Your task to perform on an android device: Clear all items from cart on costco. Search for bose quietcomfort 35 on costco, select the first entry, and add it to the cart. Image 0: 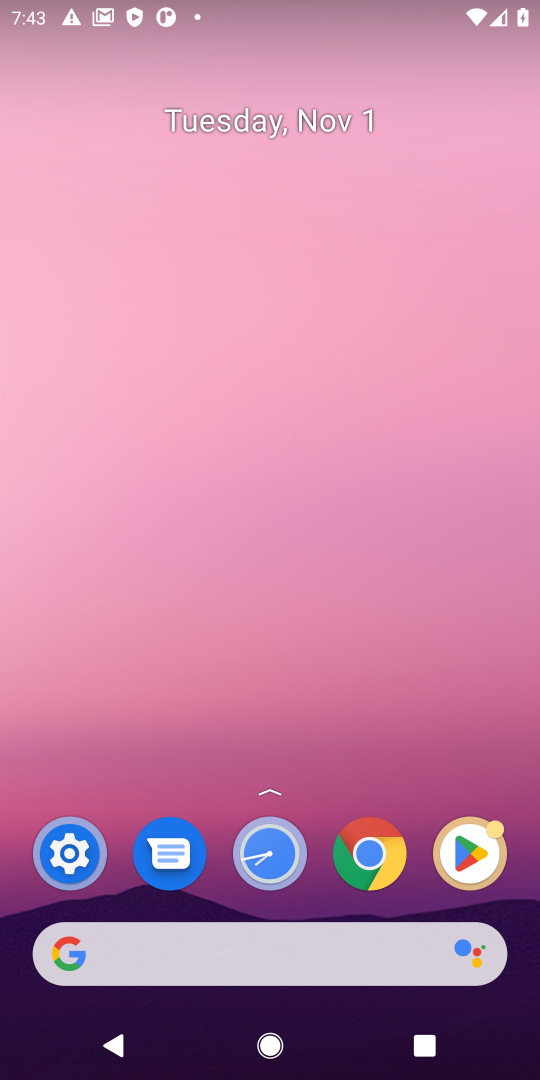
Step 0: click (257, 973)
Your task to perform on an android device: Clear all items from cart on costco. Search for bose quietcomfort 35 on costco, select the first entry, and add it to the cart. Image 1: 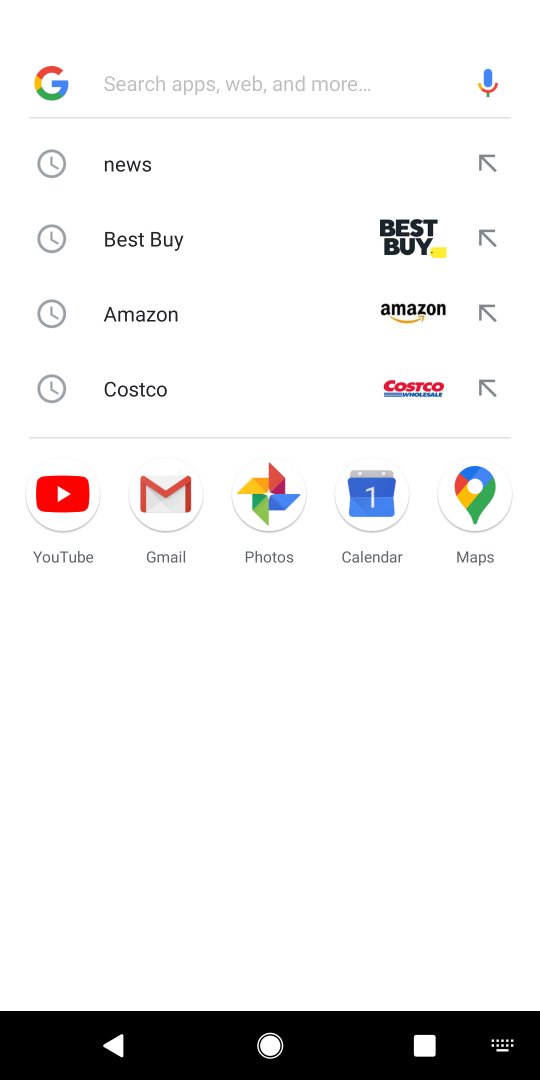
Step 1: type "costco"
Your task to perform on an android device: Clear all items from cart on costco. Search for bose quietcomfort 35 on costco, select the first entry, and add it to the cart. Image 2: 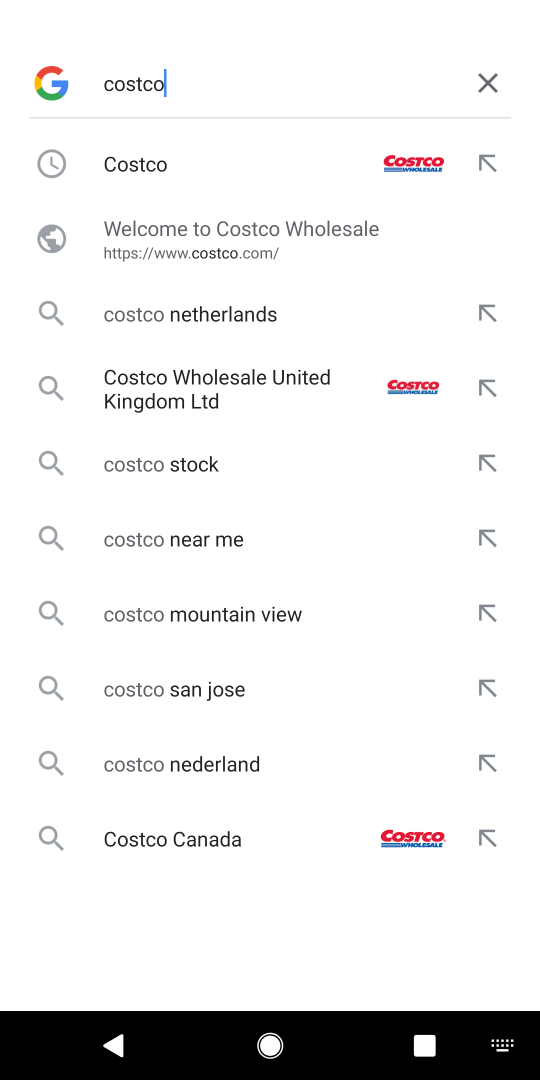
Step 2: click (128, 180)
Your task to perform on an android device: Clear all items from cart on costco. Search for bose quietcomfort 35 on costco, select the first entry, and add it to the cart. Image 3: 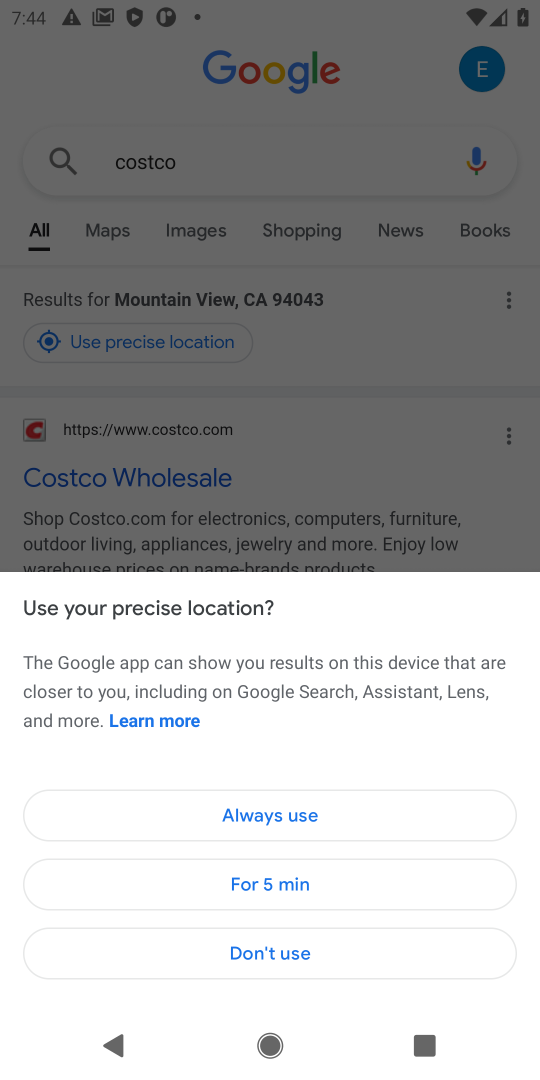
Step 3: click (241, 960)
Your task to perform on an android device: Clear all items from cart on costco. Search for bose quietcomfort 35 on costco, select the first entry, and add it to the cart. Image 4: 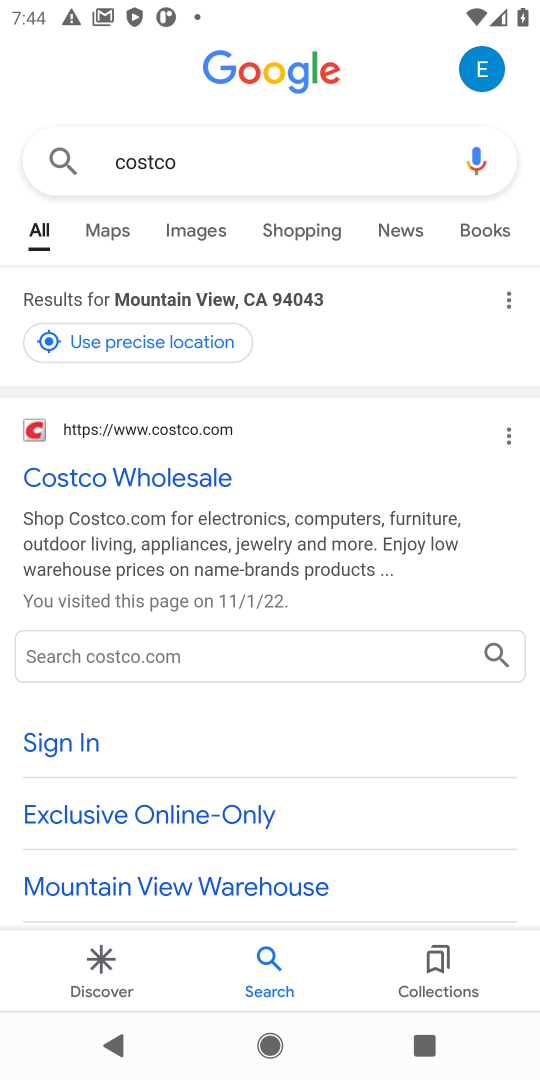
Step 4: click (141, 482)
Your task to perform on an android device: Clear all items from cart on costco. Search for bose quietcomfort 35 on costco, select the first entry, and add it to the cart. Image 5: 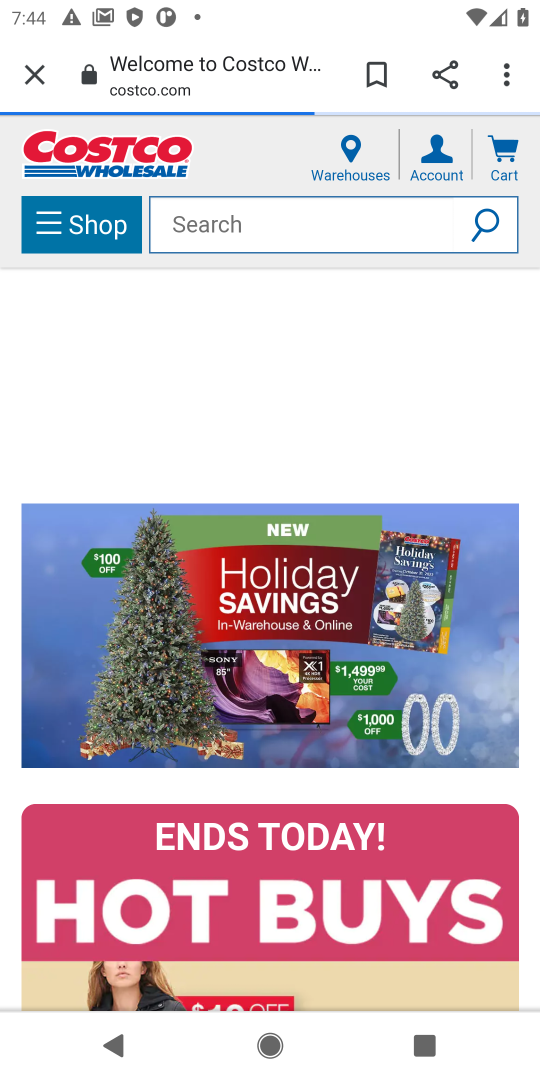
Step 5: click (287, 227)
Your task to perform on an android device: Clear all items from cart on costco. Search for bose quietcomfort 35 on costco, select the first entry, and add it to the cart. Image 6: 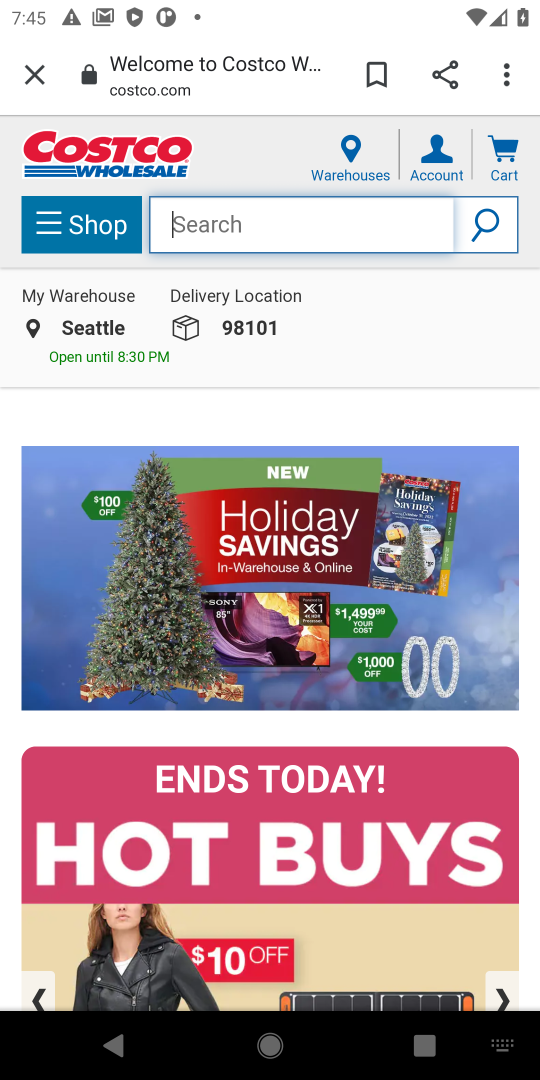
Step 6: type "bose quietcomfort 35"
Your task to perform on an android device: Clear all items from cart on costco. Search for bose quietcomfort 35 on costco, select the first entry, and add it to the cart. Image 7: 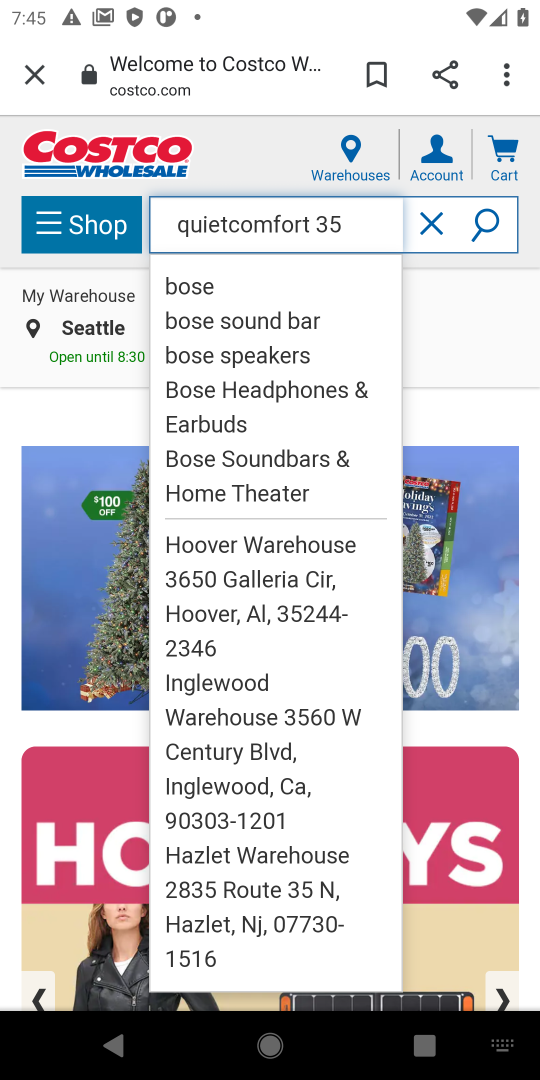
Step 7: click (493, 227)
Your task to perform on an android device: Clear all items from cart on costco. Search for bose quietcomfort 35 on costco, select the first entry, and add it to the cart. Image 8: 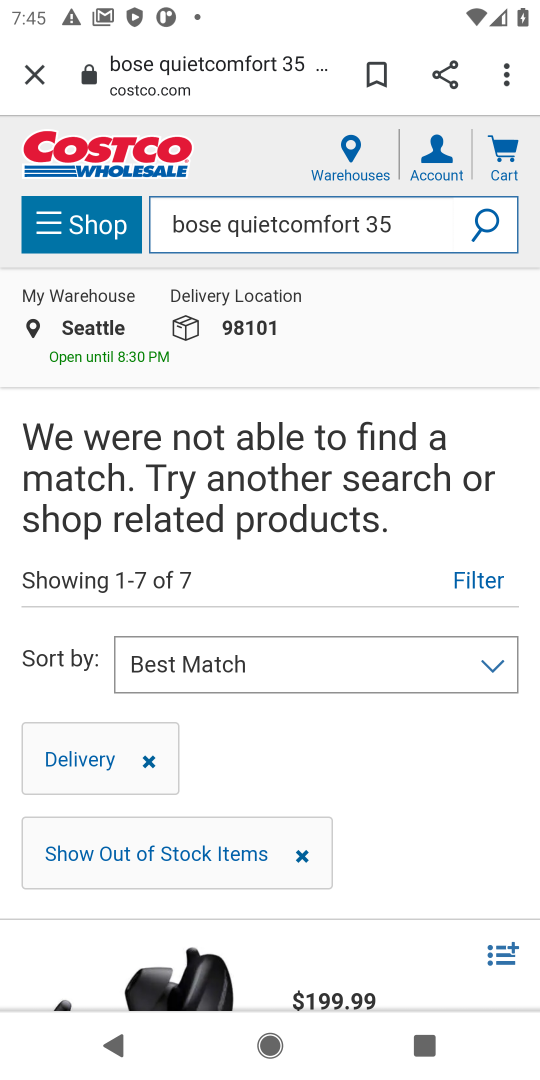
Step 8: drag from (353, 791) to (384, 348)
Your task to perform on an android device: Clear all items from cart on costco. Search for bose quietcomfort 35 on costco, select the first entry, and add it to the cart. Image 9: 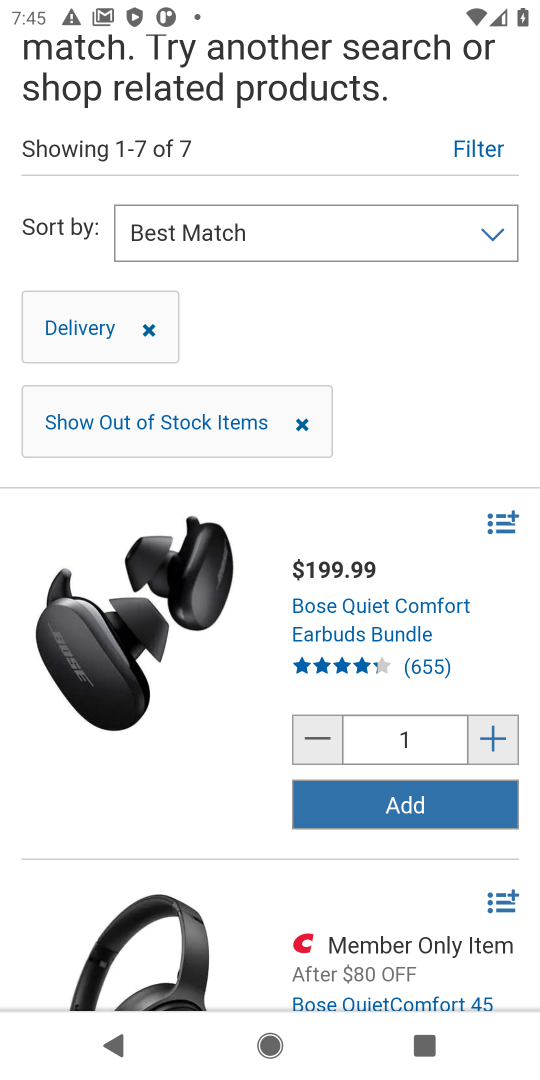
Step 9: click (417, 811)
Your task to perform on an android device: Clear all items from cart on costco. Search for bose quietcomfort 35 on costco, select the first entry, and add it to the cart. Image 10: 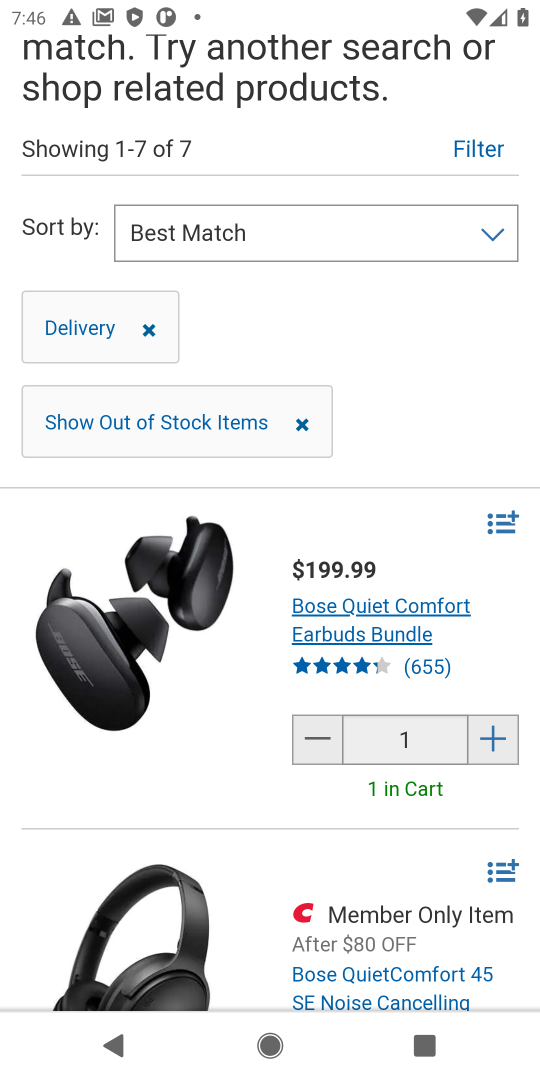
Step 10: task complete